Your task to perform on an android device: remove spam from my inbox in the gmail app Image 0: 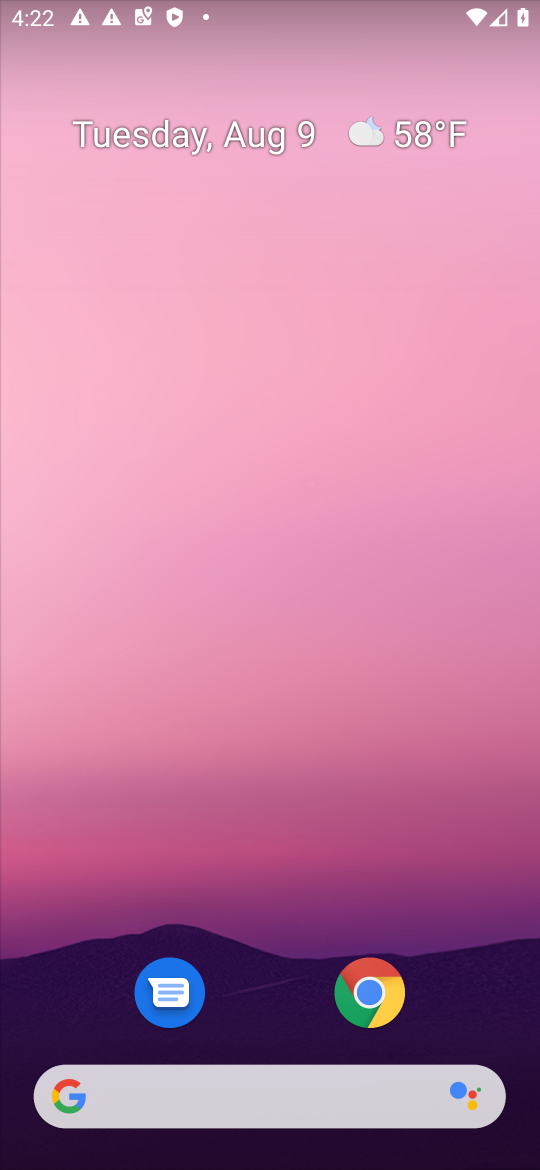
Step 0: drag from (180, 1068) to (320, 277)
Your task to perform on an android device: remove spam from my inbox in the gmail app Image 1: 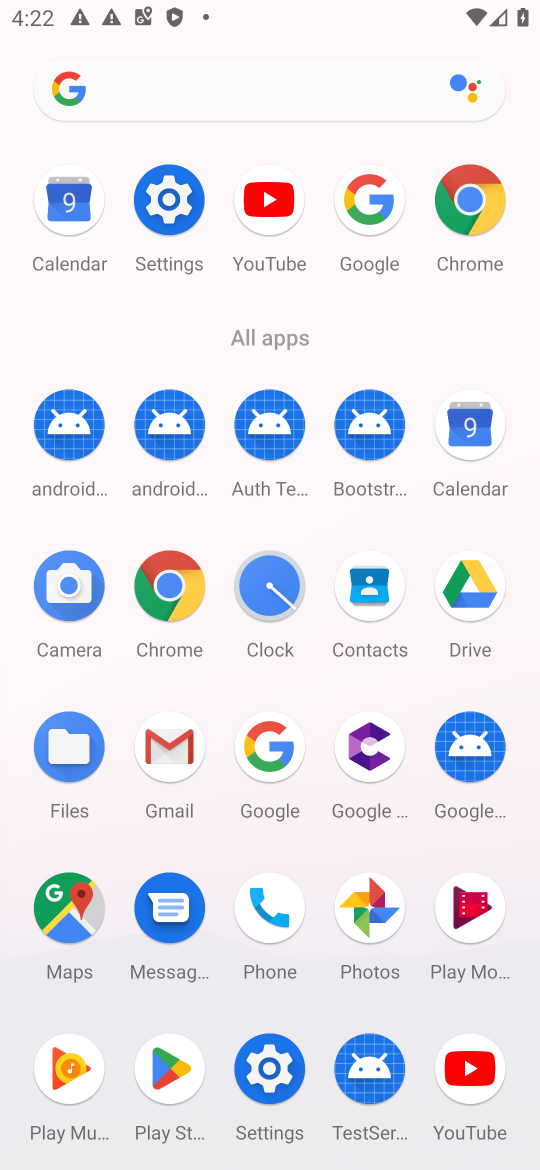
Step 1: click (159, 738)
Your task to perform on an android device: remove spam from my inbox in the gmail app Image 2: 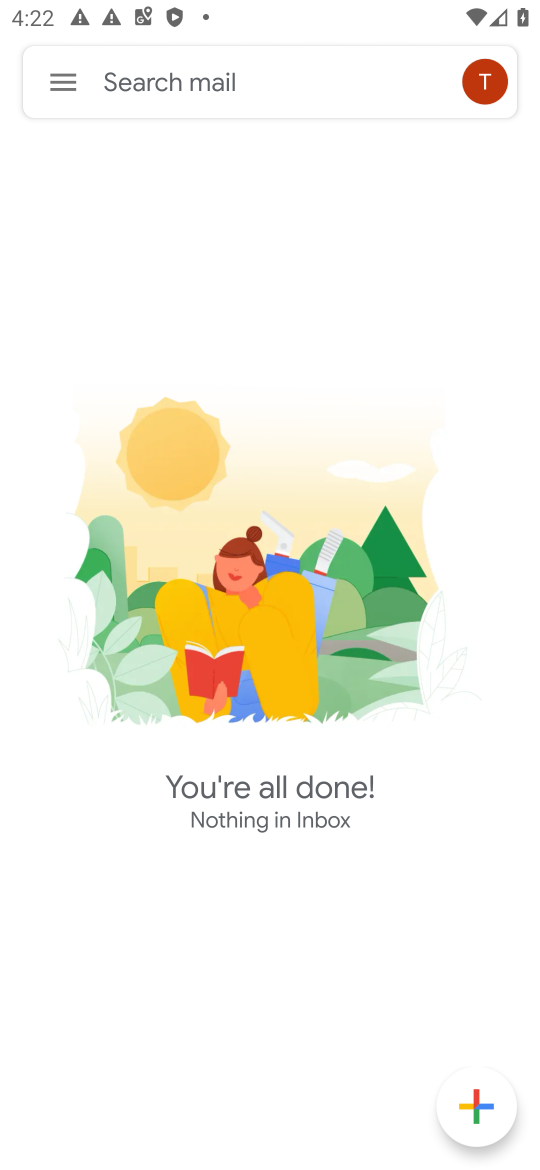
Step 2: click (79, 77)
Your task to perform on an android device: remove spam from my inbox in the gmail app Image 3: 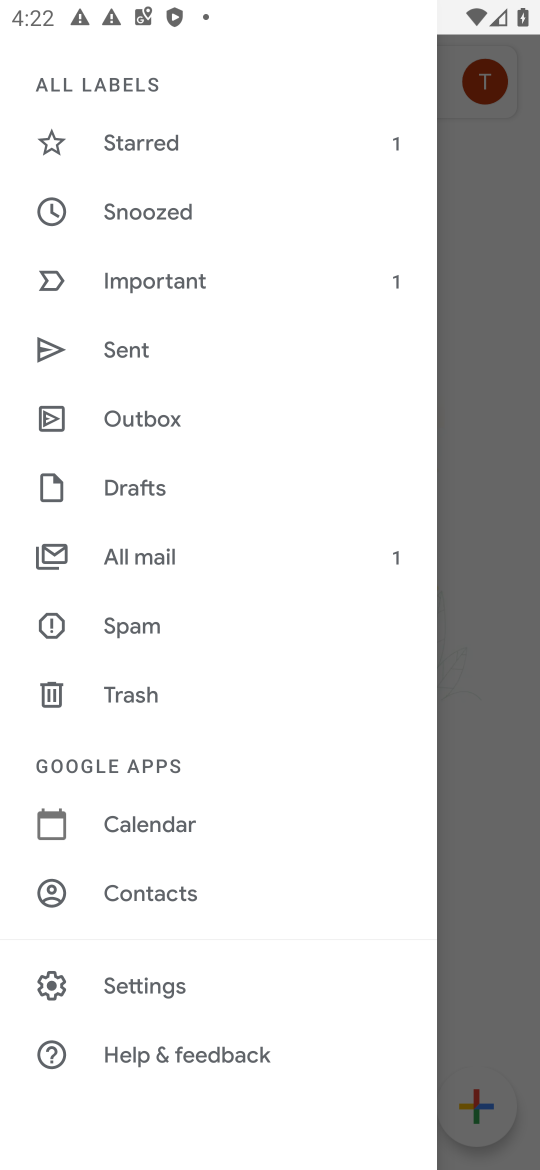
Step 3: click (135, 629)
Your task to perform on an android device: remove spam from my inbox in the gmail app Image 4: 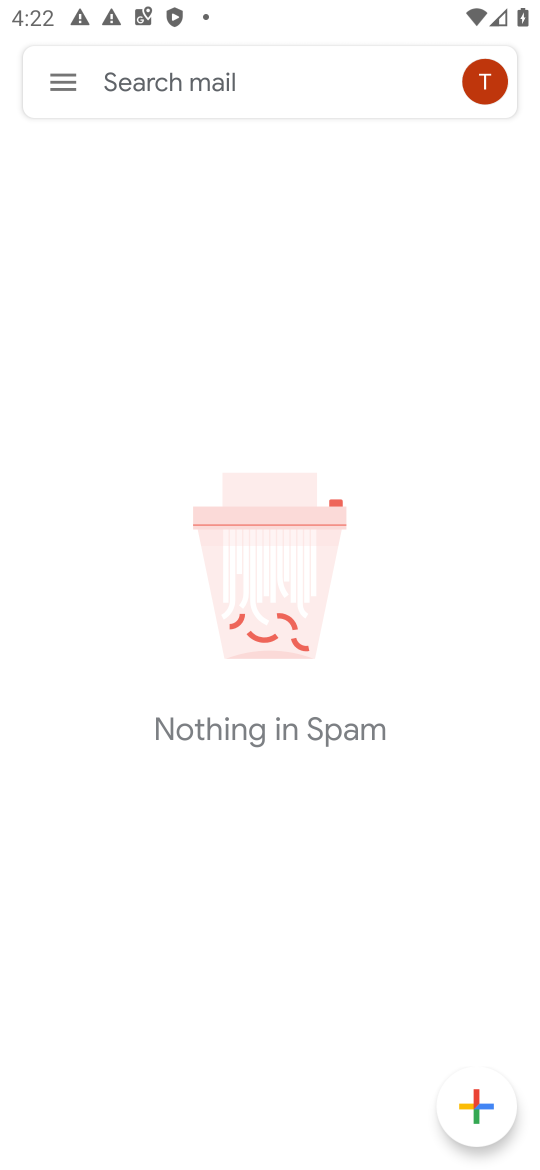
Step 4: task complete